Your task to perform on an android device: turn off notifications in google photos Image 0: 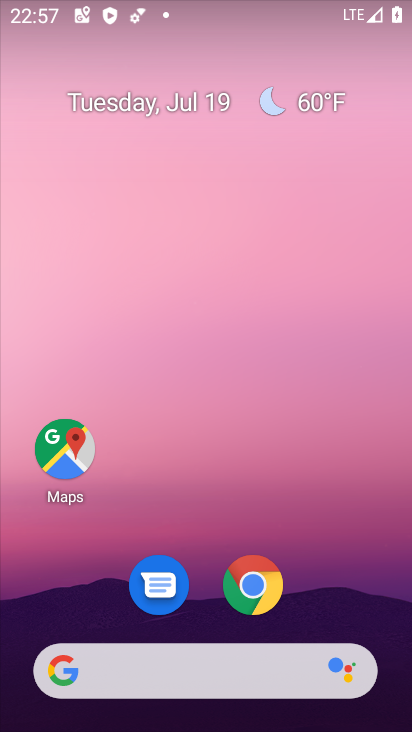
Step 0: drag from (331, 553) to (368, 17)
Your task to perform on an android device: turn off notifications in google photos Image 1: 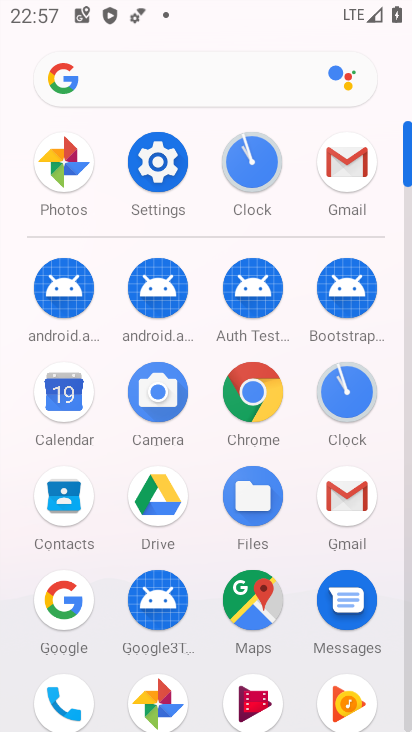
Step 1: click (70, 155)
Your task to perform on an android device: turn off notifications in google photos Image 2: 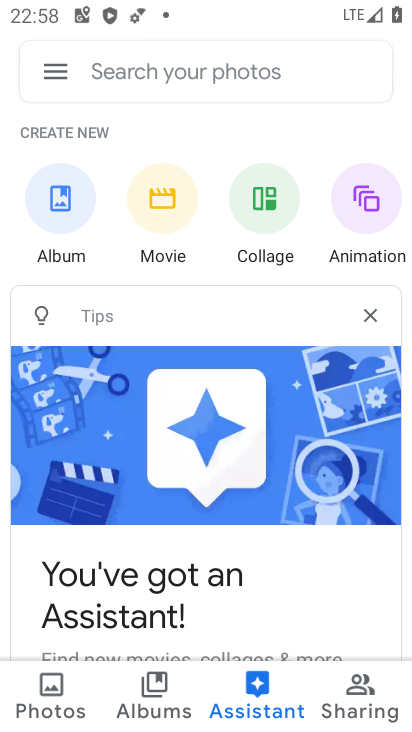
Step 2: click (55, 81)
Your task to perform on an android device: turn off notifications in google photos Image 3: 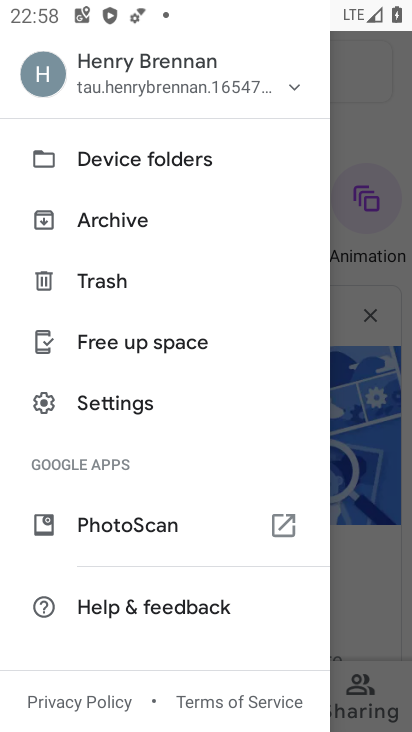
Step 3: click (117, 391)
Your task to perform on an android device: turn off notifications in google photos Image 4: 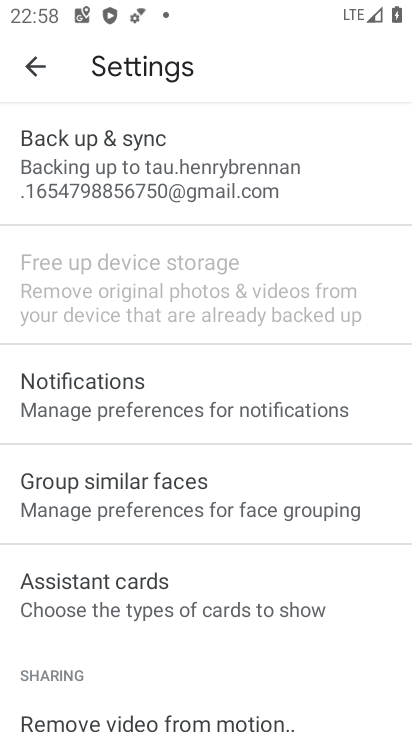
Step 4: click (117, 391)
Your task to perform on an android device: turn off notifications in google photos Image 5: 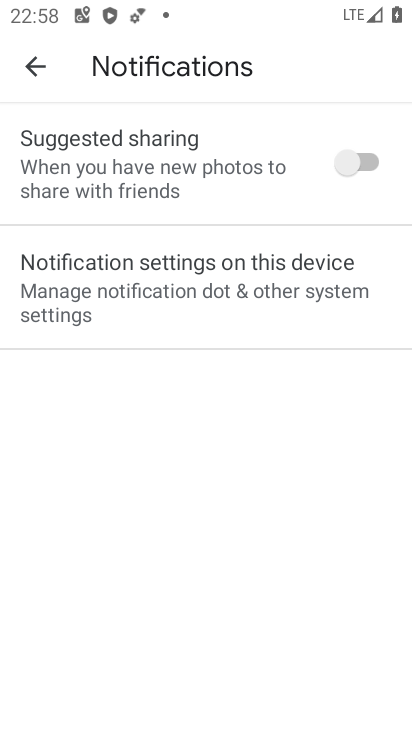
Step 5: task complete